Your task to perform on an android device: Search for sushi restaurants on Maps Image 0: 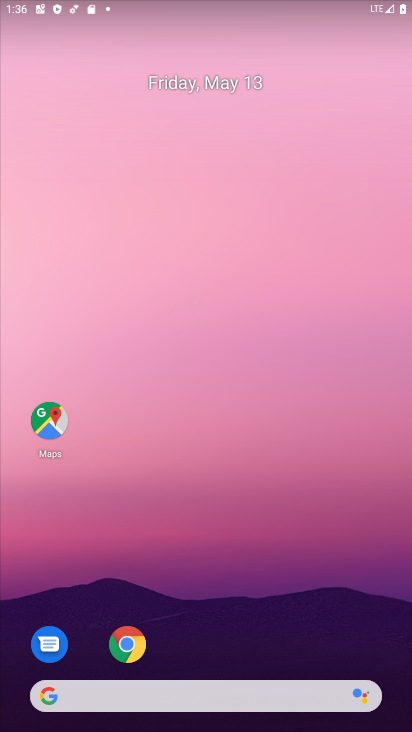
Step 0: drag from (325, 618) to (229, 41)
Your task to perform on an android device: Search for sushi restaurants on Maps Image 1: 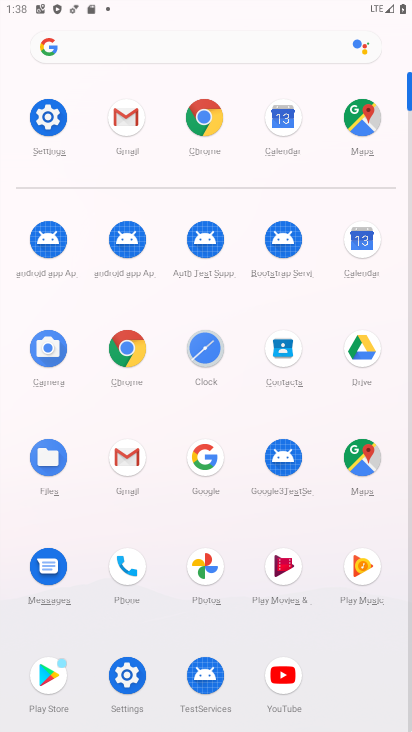
Step 1: click (366, 453)
Your task to perform on an android device: Search for sushi restaurants on Maps Image 2: 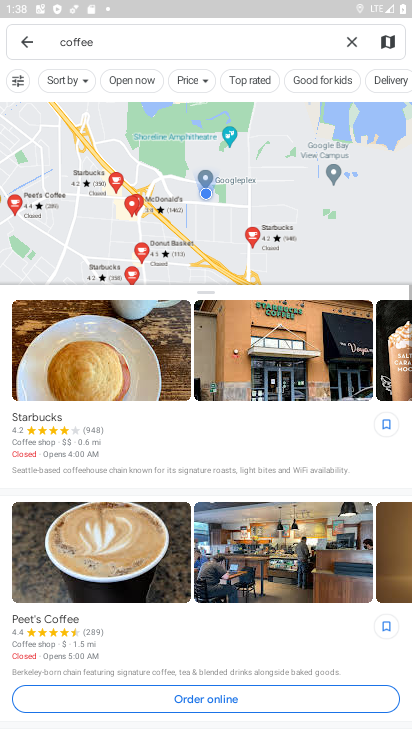
Step 2: click (352, 46)
Your task to perform on an android device: Search for sushi restaurants on Maps Image 3: 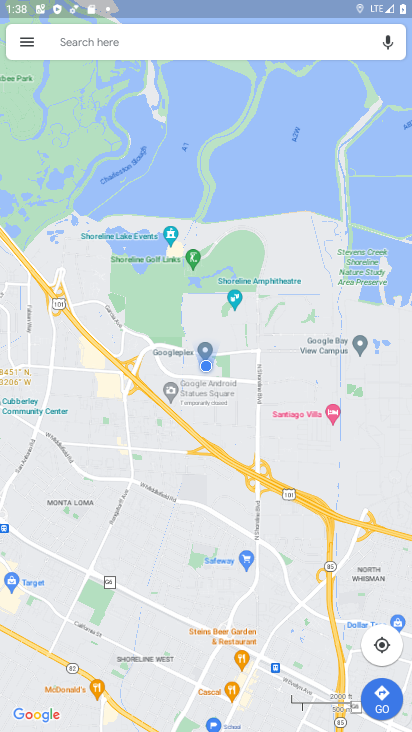
Step 3: click (115, 46)
Your task to perform on an android device: Search for sushi restaurants on Maps Image 4: 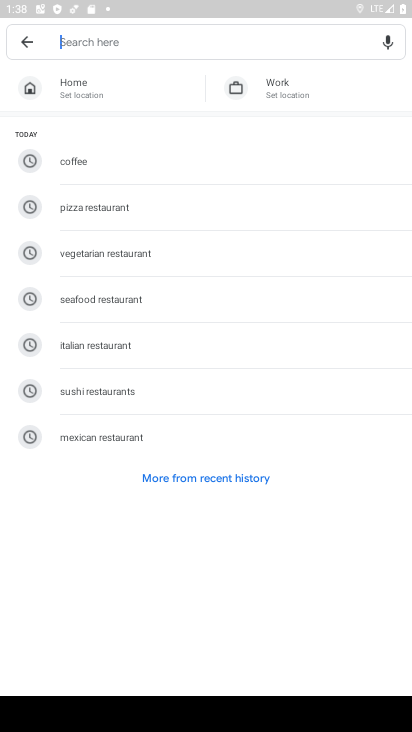
Step 4: click (151, 392)
Your task to perform on an android device: Search for sushi restaurants on Maps Image 5: 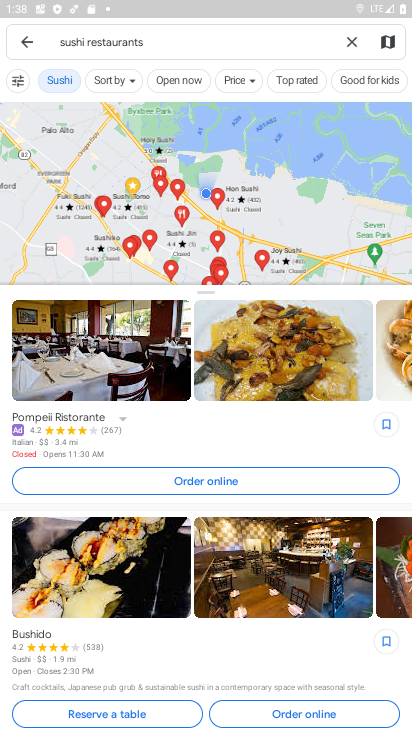
Step 5: task complete